Your task to perform on an android device: Open Wikipedia Image 0: 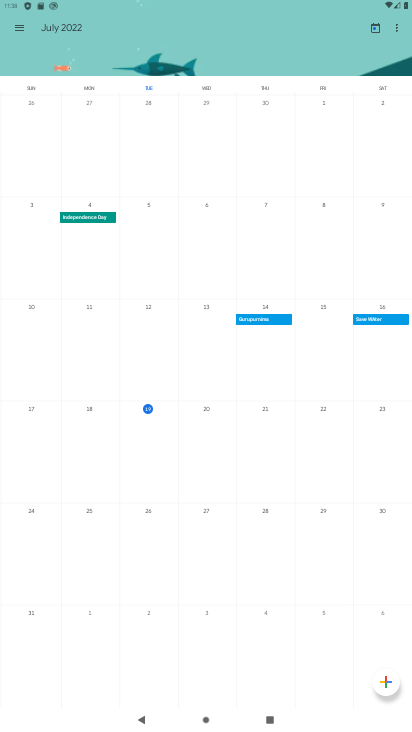
Step 0: press home button
Your task to perform on an android device: Open Wikipedia Image 1: 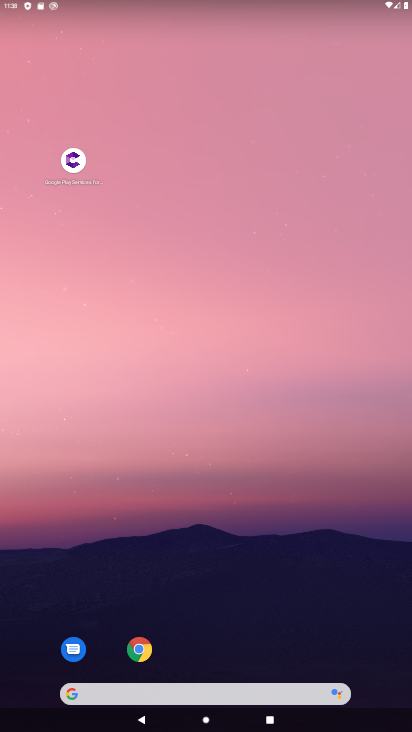
Step 1: click (67, 699)
Your task to perform on an android device: Open Wikipedia Image 2: 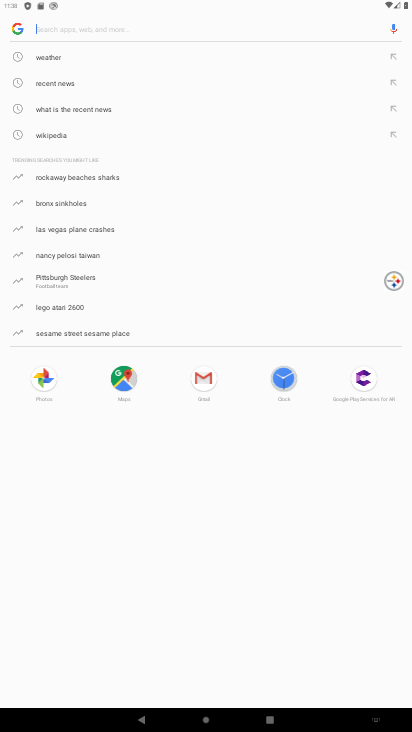
Step 2: type "Wikipedia"
Your task to perform on an android device: Open Wikipedia Image 3: 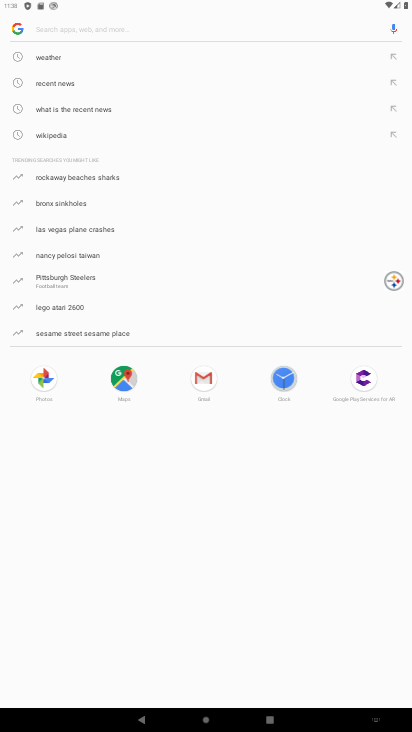
Step 3: click (67, 27)
Your task to perform on an android device: Open Wikipedia Image 4: 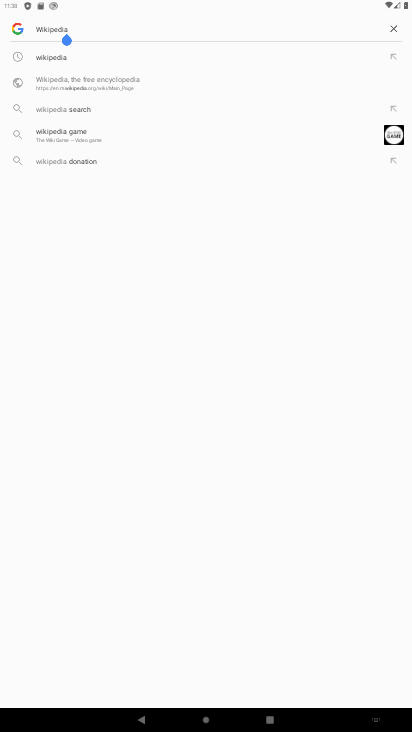
Step 4: press enter
Your task to perform on an android device: Open Wikipedia Image 5: 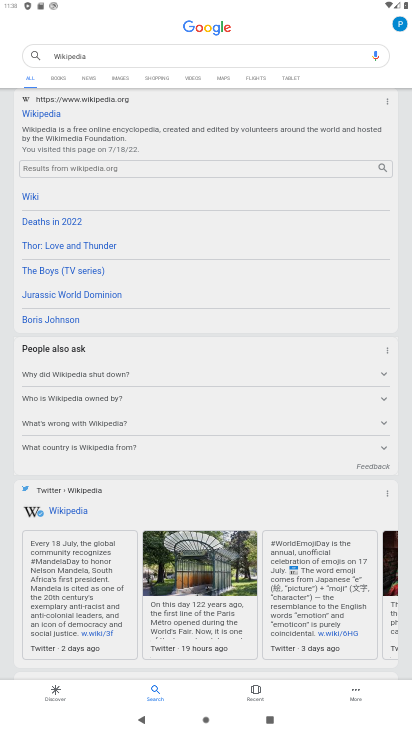
Step 5: click (38, 114)
Your task to perform on an android device: Open Wikipedia Image 6: 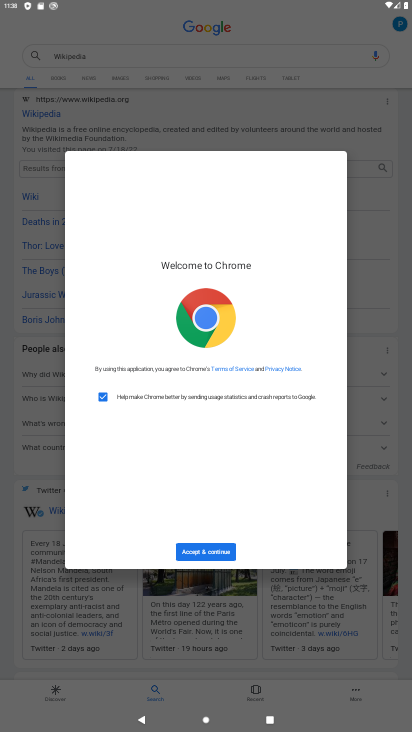
Step 6: click (218, 549)
Your task to perform on an android device: Open Wikipedia Image 7: 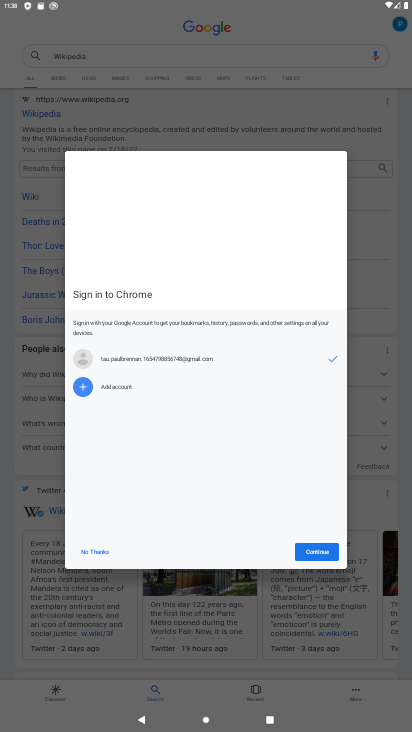
Step 7: click (309, 543)
Your task to perform on an android device: Open Wikipedia Image 8: 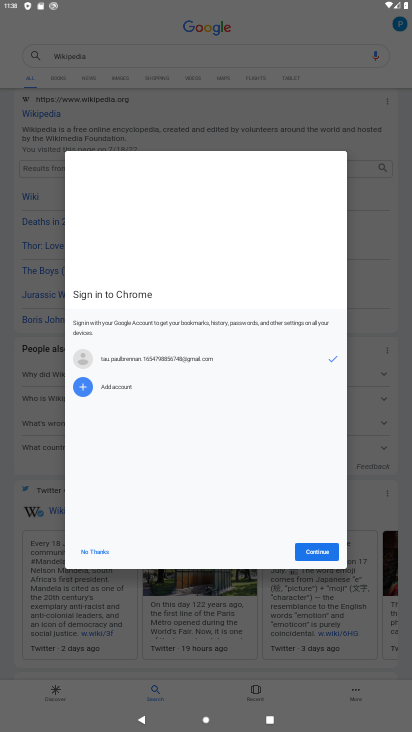
Step 8: click (311, 547)
Your task to perform on an android device: Open Wikipedia Image 9: 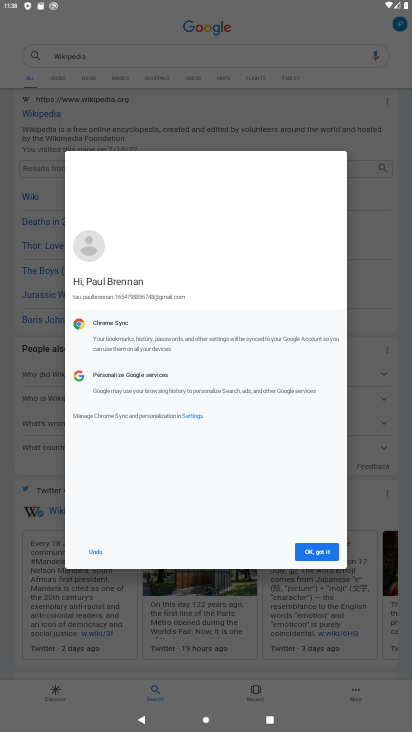
Step 9: click (311, 547)
Your task to perform on an android device: Open Wikipedia Image 10: 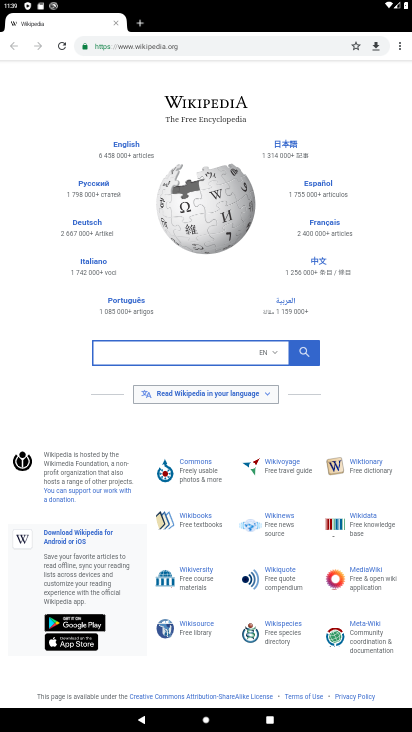
Step 10: task complete